Your task to perform on an android device: turn pop-ups on in chrome Image 0: 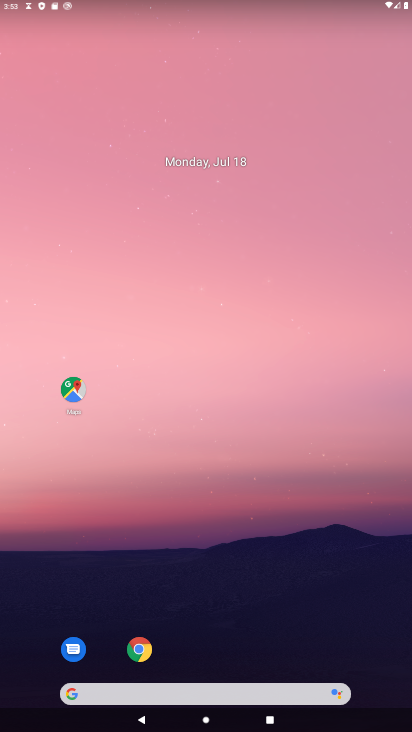
Step 0: press home button
Your task to perform on an android device: turn pop-ups on in chrome Image 1: 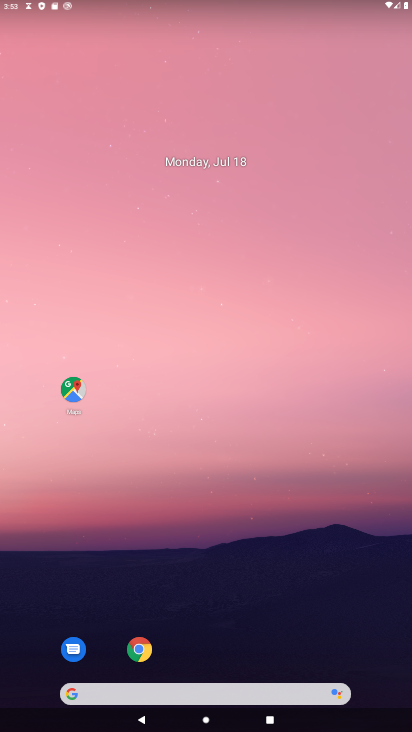
Step 1: click (145, 649)
Your task to perform on an android device: turn pop-ups on in chrome Image 2: 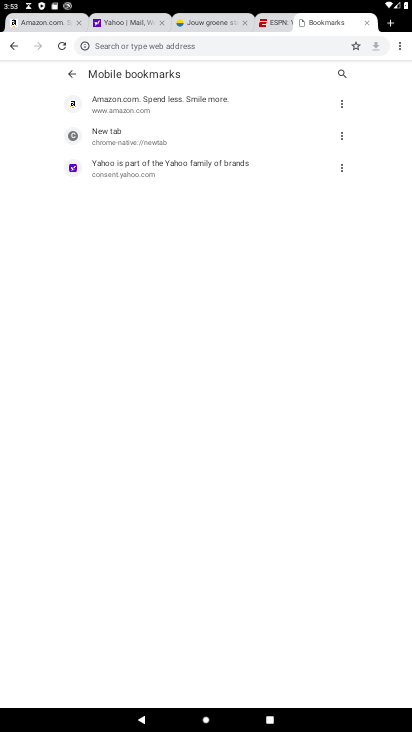
Step 2: drag from (400, 42) to (306, 232)
Your task to perform on an android device: turn pop-ups on in chrome Image 3: 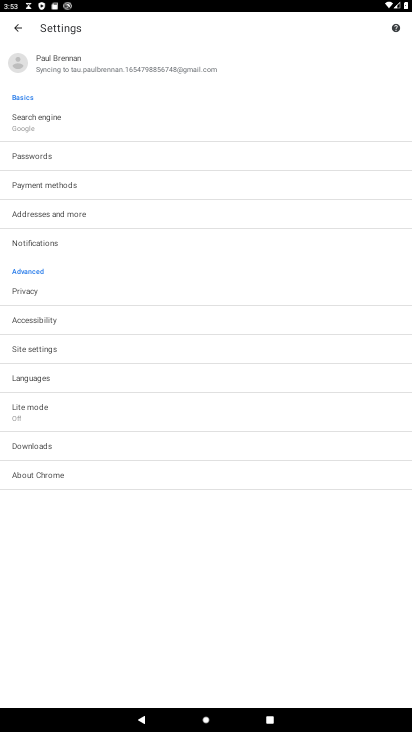
Step 3: click (26, 345)
Your task to perform on an android device: turn pop-ups on in chrome Image 4: 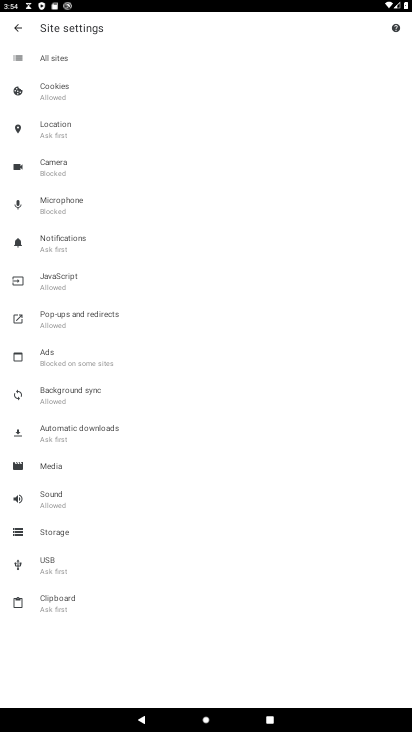
Step 4: click (94, 321)
Your task to perform on an android device: turn pop-ups on in chrome Image 5: 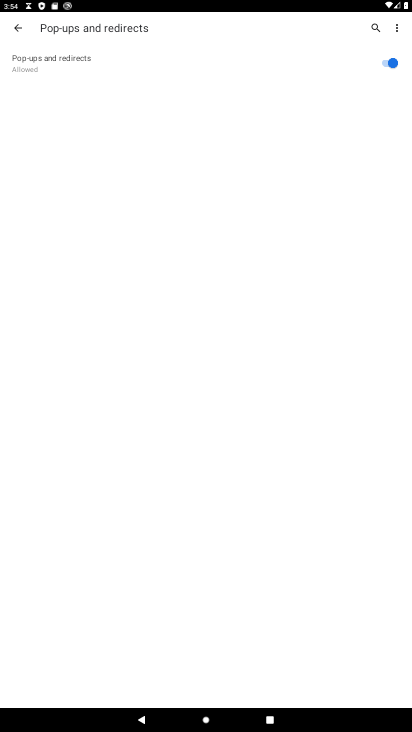
Step 5: task complete